Your task to perform on an android device: turn on bluetooth scan Image 0: 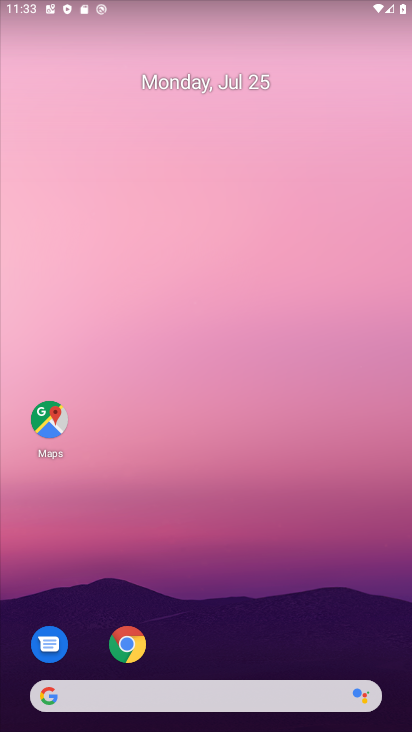
Step 0: press home button
Your task to perform on an android device: turn on bluetooth scan Image 1: 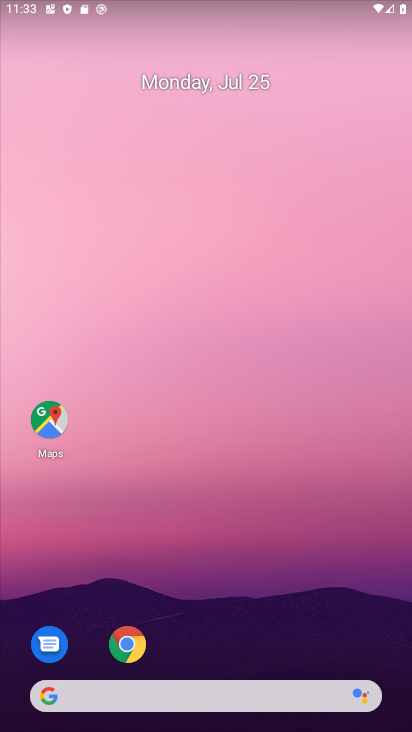
Step 1: drag from (193, 654) to (250, 147)
Your task to perform on an android device: turn on bluetooth scan Image 2: 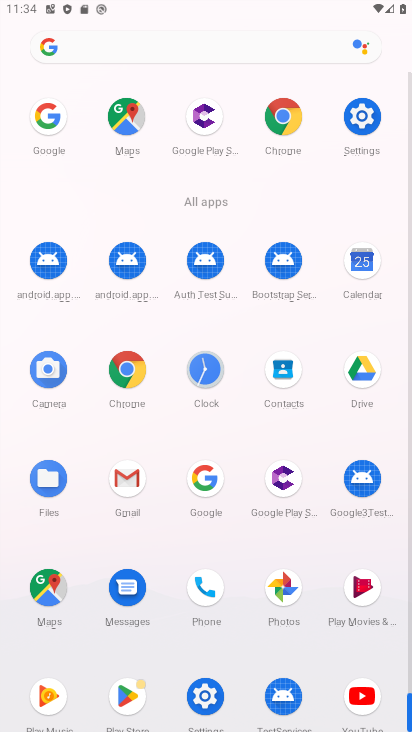
Step 2: click (373, 140)
Your task to perform on an android device: turn on bluetooth scan Image 3: 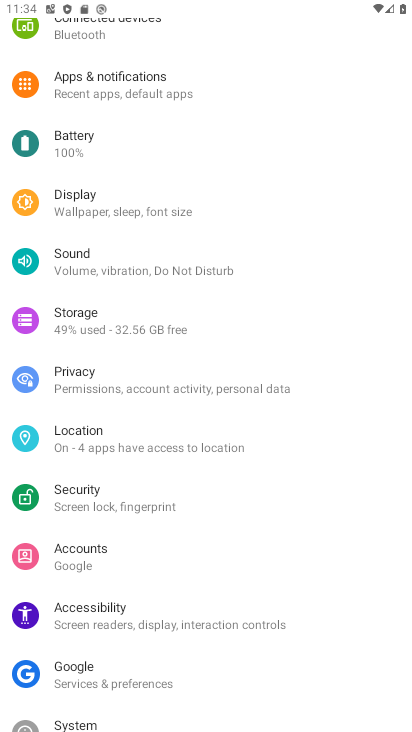
Step 3: drag from (244, 257) to (207, 551)
Your task to perform on an android device: turn on bluetooth scan Image 4: 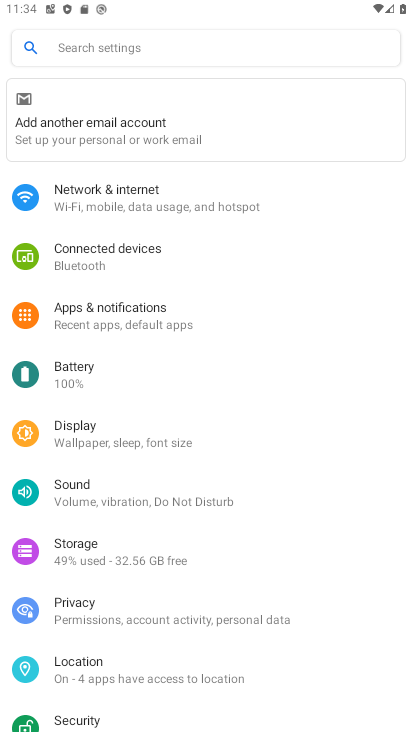
Step 4: click (169, 264)
Your task to perform on an android device: turn on bluetooth scan Image 5: 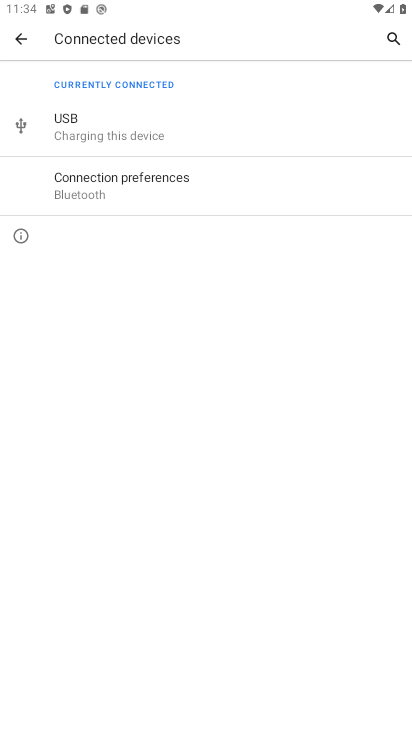
Step 5: click (183, 192)
Your task to perform on an android device: turn on bluetooth scan Image 6: 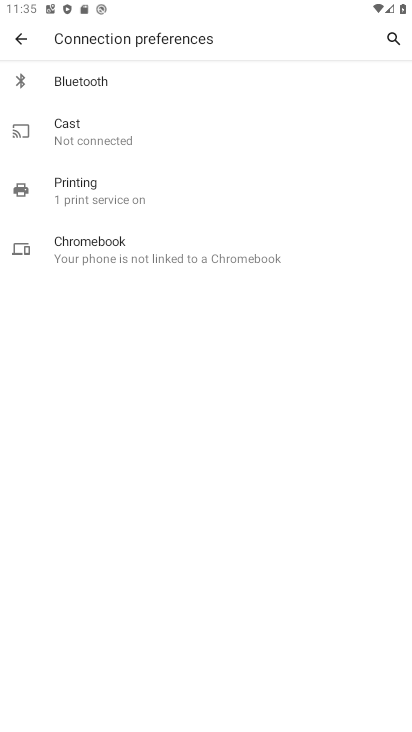
Step 6: click (95, 90)
Your task to perform on an android device: turn on bluetooth scan Image 7: 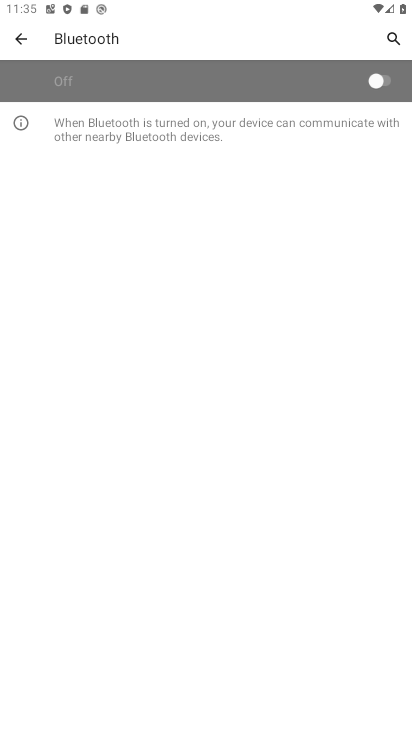
Step 7: click (220, 82)
Your task to perform on an android device: turn on bluetooth scan Image 8: 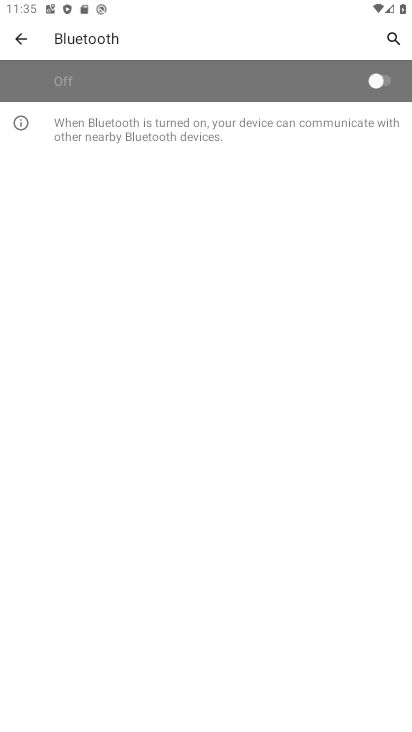
Step 8: click (220, 82)
Your task to perform on an android device: turn on bluetooth scan Image 9: 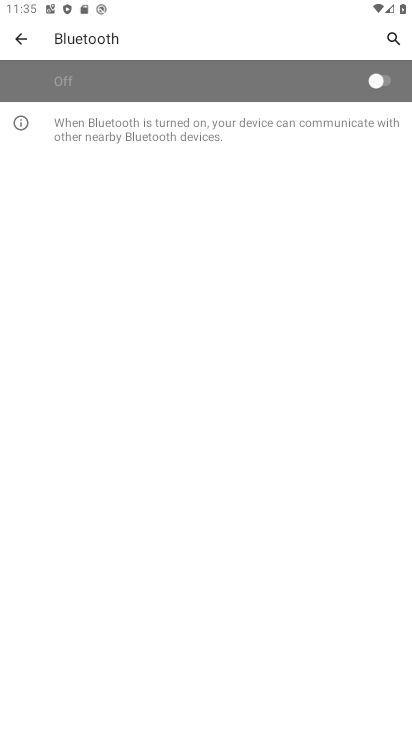
Step 9: task complete